Your task to perform on an android device: Open Amazon Image 0: 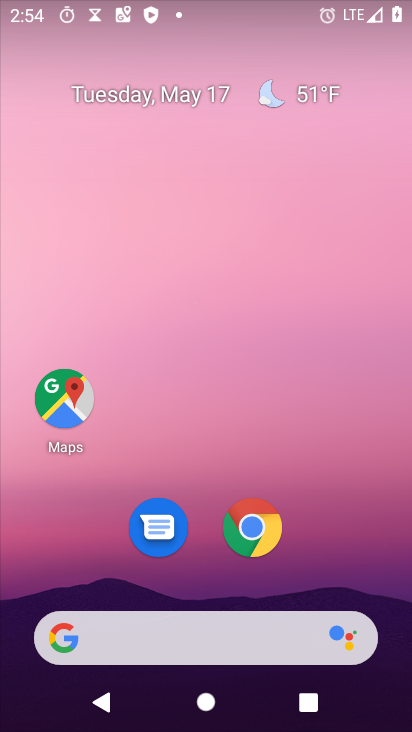
Step 0: click (253, 525)
Your task to perform on an android device: Open Amazon Image 1: 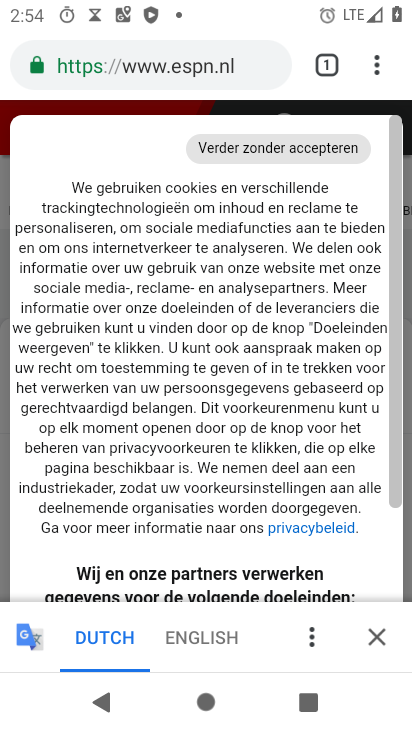
Step 1: click (236, 71)
Your task to perform on an android device: Open Amazon Image 2: 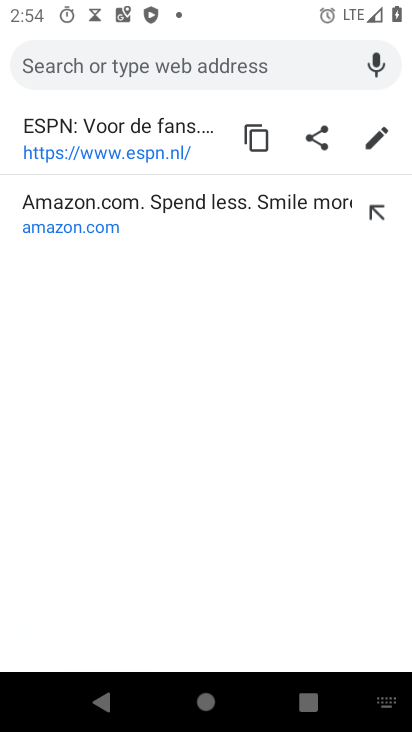
Step 2: type "Amazon"
Your task to perform on an android device: Open Amazon Image 3: 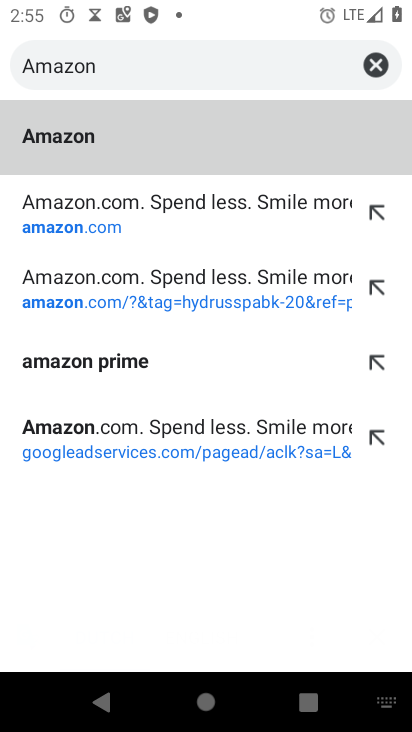
Step 3: click (83, 138)
Your task to perform on an android device: Open Amazon Image 4: 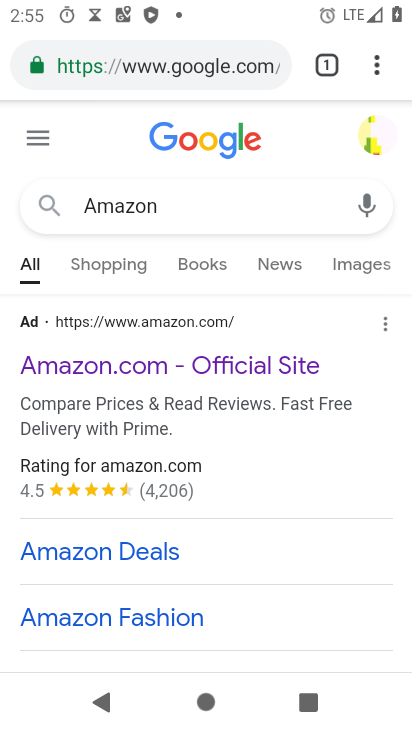
Step 4: click (187, 357)
Your task to perform on an android device: Open Amazon Image 5: 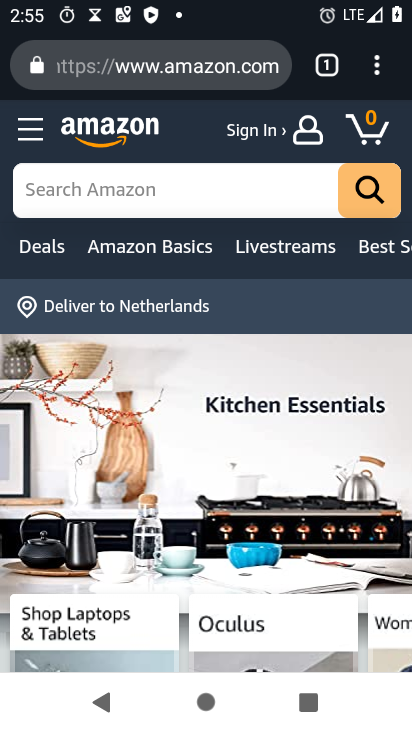
Step 5: task complete